Your task to perform on an android device: What's the weather going to be tomorrow? Image 0: 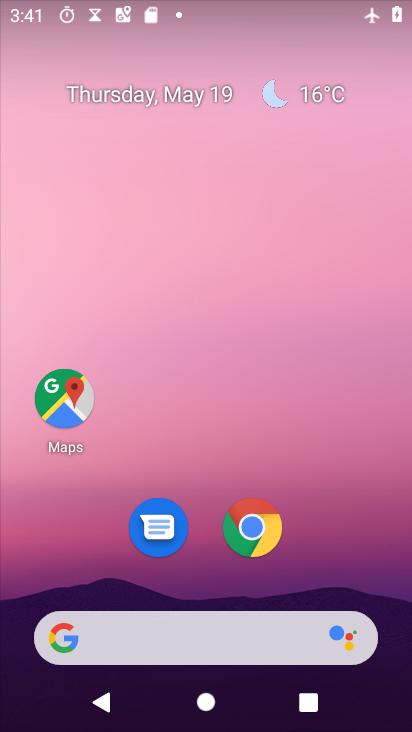
Step 0: click (329, 87)
Your task to perform on an android device: What's the weather going to be tomorrow? Image 1: 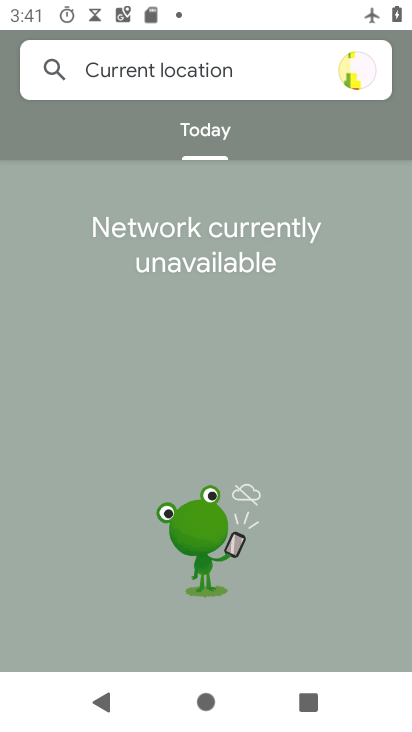
Step 1: task complete